Your task to perform on an android device: Do I have any events this weekend? Image 0: 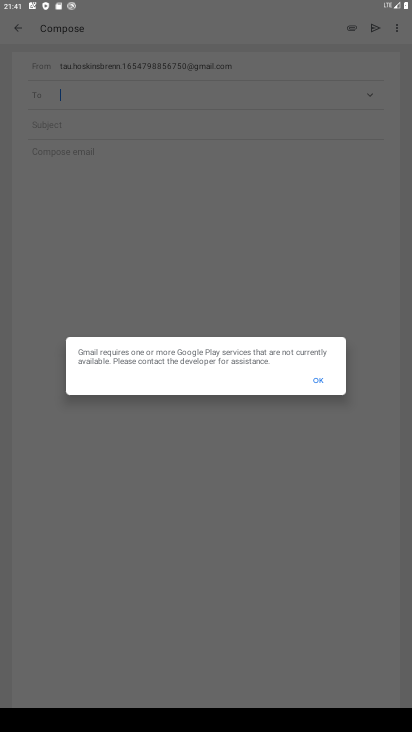
Step 0: click (351, 308)
Your task to perform on an android device: Do I have any events this weekend? Image 1: 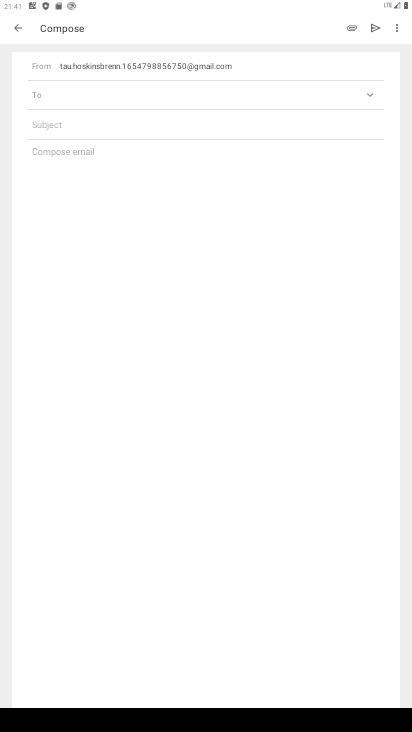
Step 1: drag from (216, 614) to (273, 198)
Your task to perform on an android device: Do I have any events this weekend? Image 2: 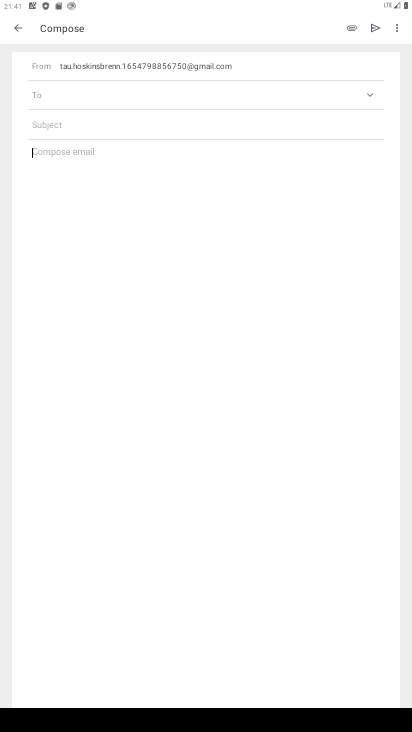
Step 2: press home button
Your task to perform on an android device: Do I have any events this weekend? Image 3: 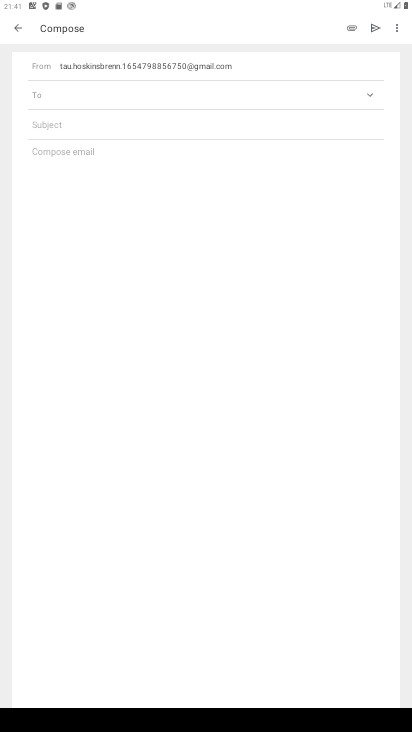
Step 3: press home button
Your task to perform on an android device: Do I have any events this weekend? Image 4: 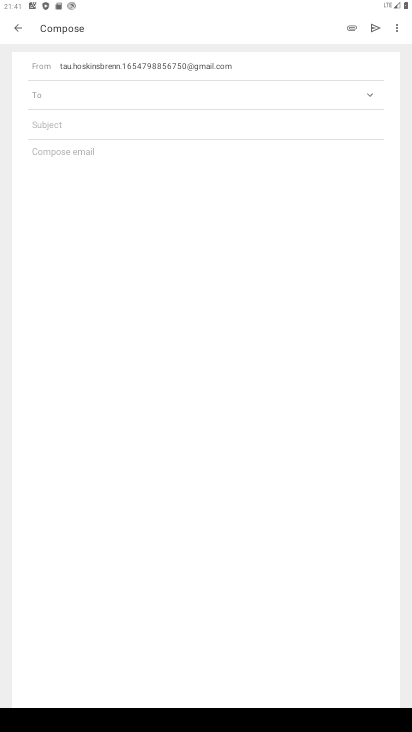
Step 4: click (207, 229)
Your task to perform on an android device: Do I have any events this weekend? Image 5: 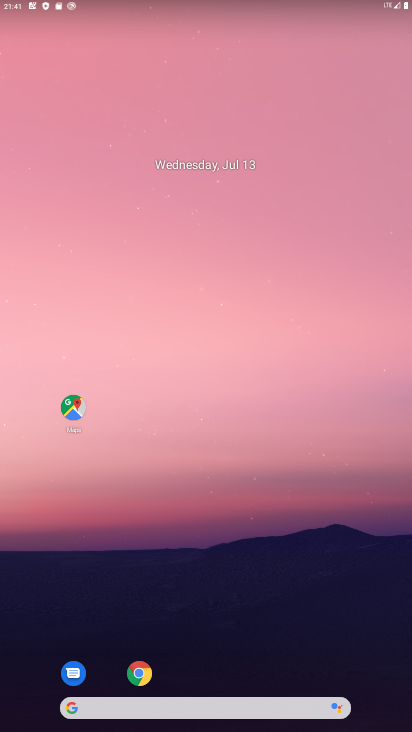
Step 5: drag from (185, 678) to (231, 178)
Your task to perform on an android device: Do I have any events this weekend? Image 6: 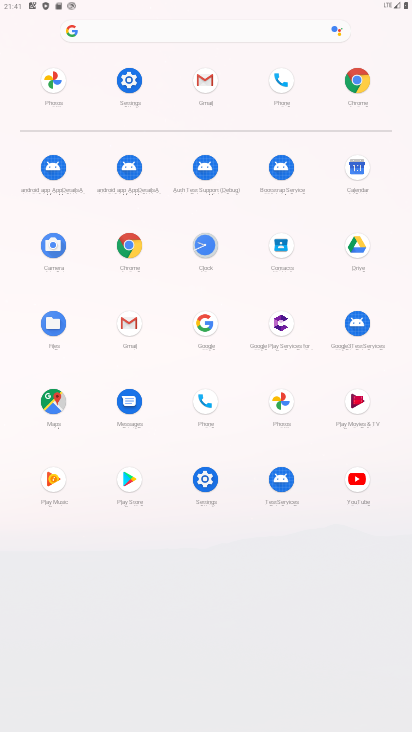
Step 6: drag from (241, 534) to (270, 338)
Your task to perform on an android device: Do I have any events this weekend? Image 7: 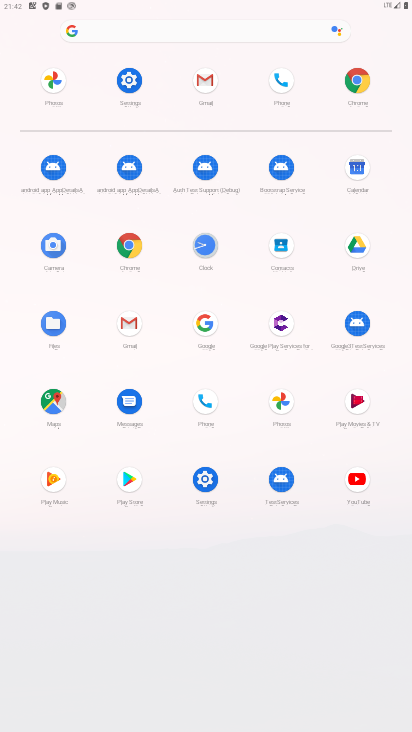
Step 7: drag from (264, 611) to (252, 435)
Your task to perform on an android device: Do I have any events this weekend? Image 8: 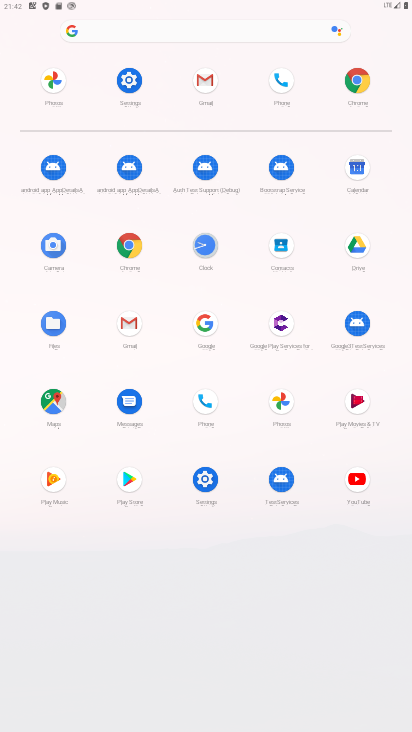
Step 8: click (353, 174)
Your task to perform on an android device: Do I have any events this weekend? Image 9: 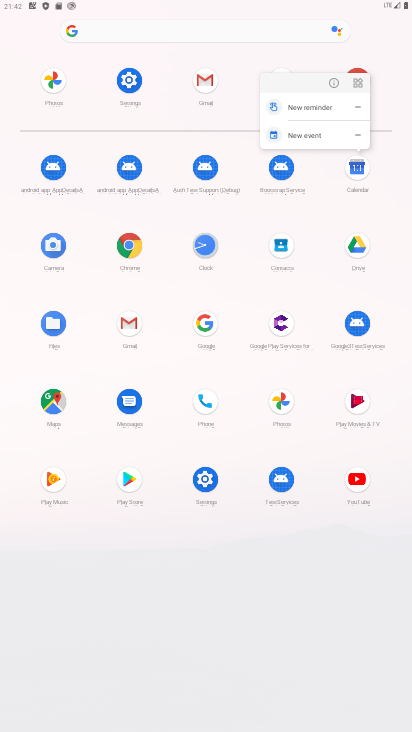
Step 9: click (336, 81)
Your task to perform on an android device: Do I have any events this weekend? Image 10: 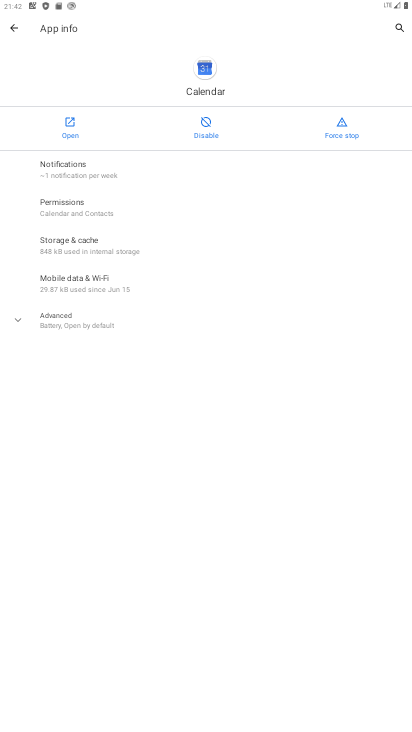
Step 10: click (77, 134)
Your task to perform on an android device: Do I have any events this weekend? Image 11: 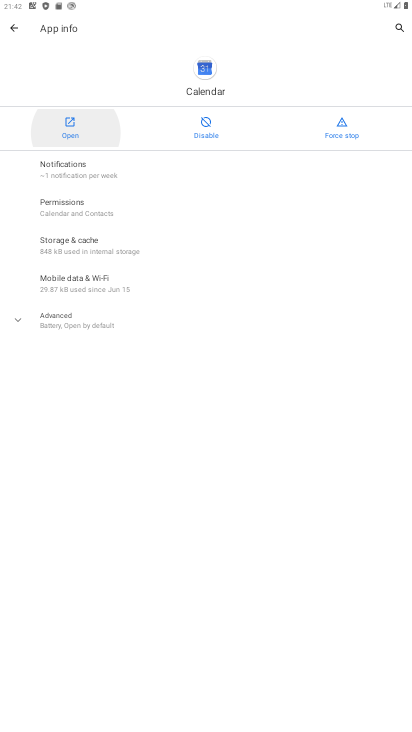
Step 11: click (77, 134)
Your task to perform on an android device: Do I have any events this weekend? Image 12: 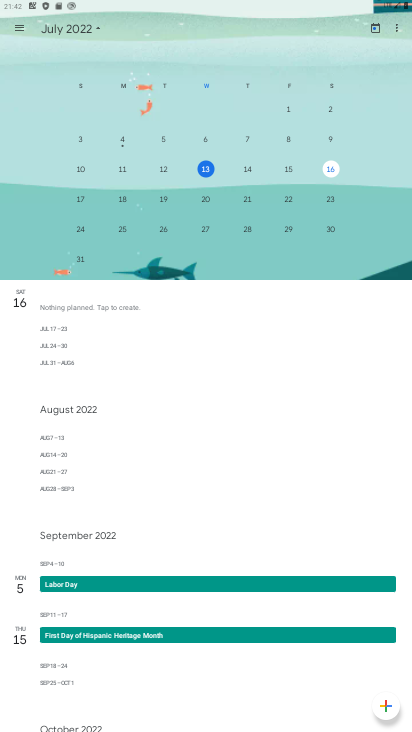
Step 12: click (329, 167)
Your task to perform on an android device: Do I have any events this weekend? Image 13: 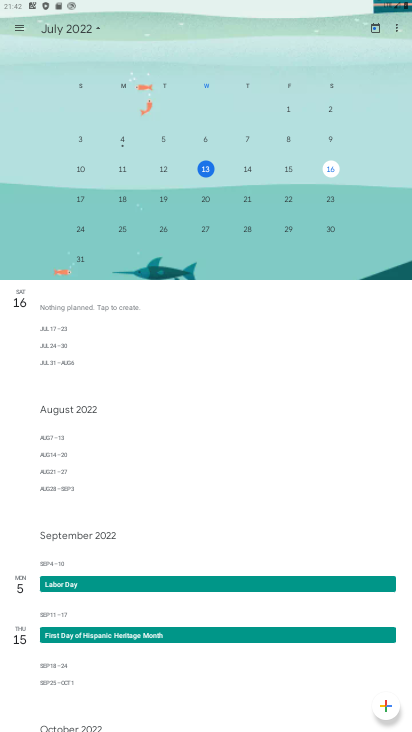
Step 13: task complete